Your task to perform on an android device: Empty the shopping cart on target.com. Add "logitech g pro" to the cart on target.com Image 0: 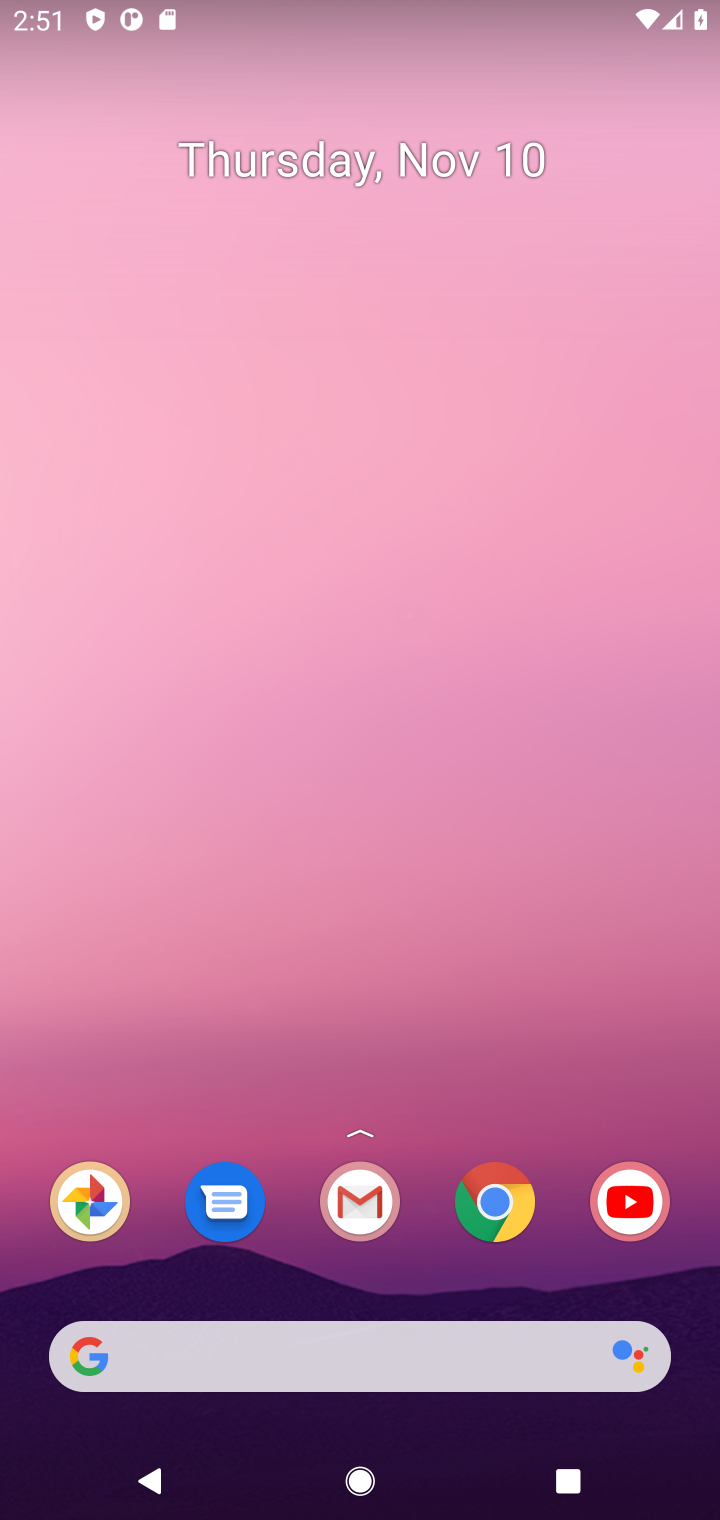
Step 0: click (490, 1219)
Your task to perform on an android device: Empty the shopping cart on target.com. Add "logitech g pro" to the cart on target.com Image 1: 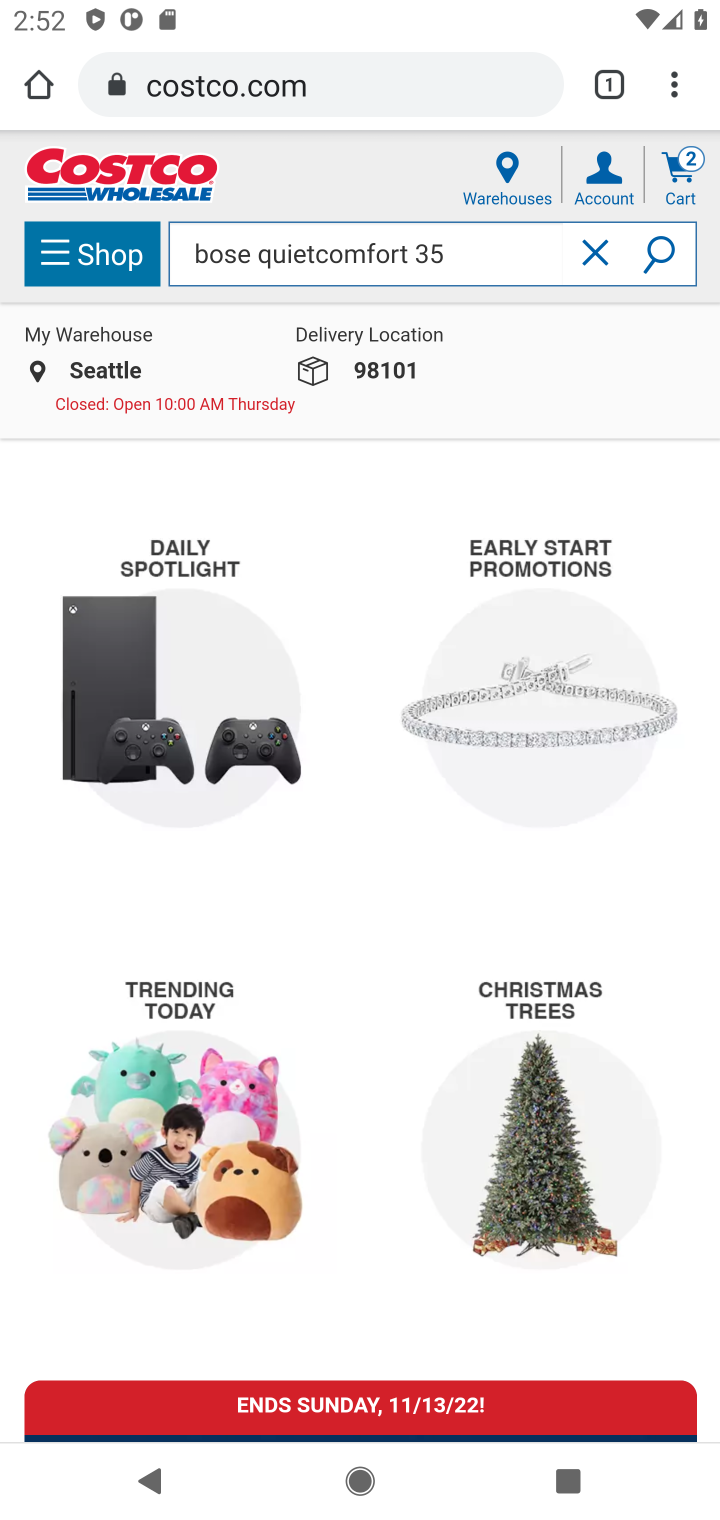
Step 1: click (238, 77)
Your task to perform on an android device: Empty the shopping cart on target.com. Add "logitech g pro" to the cart on target.com Image 2: 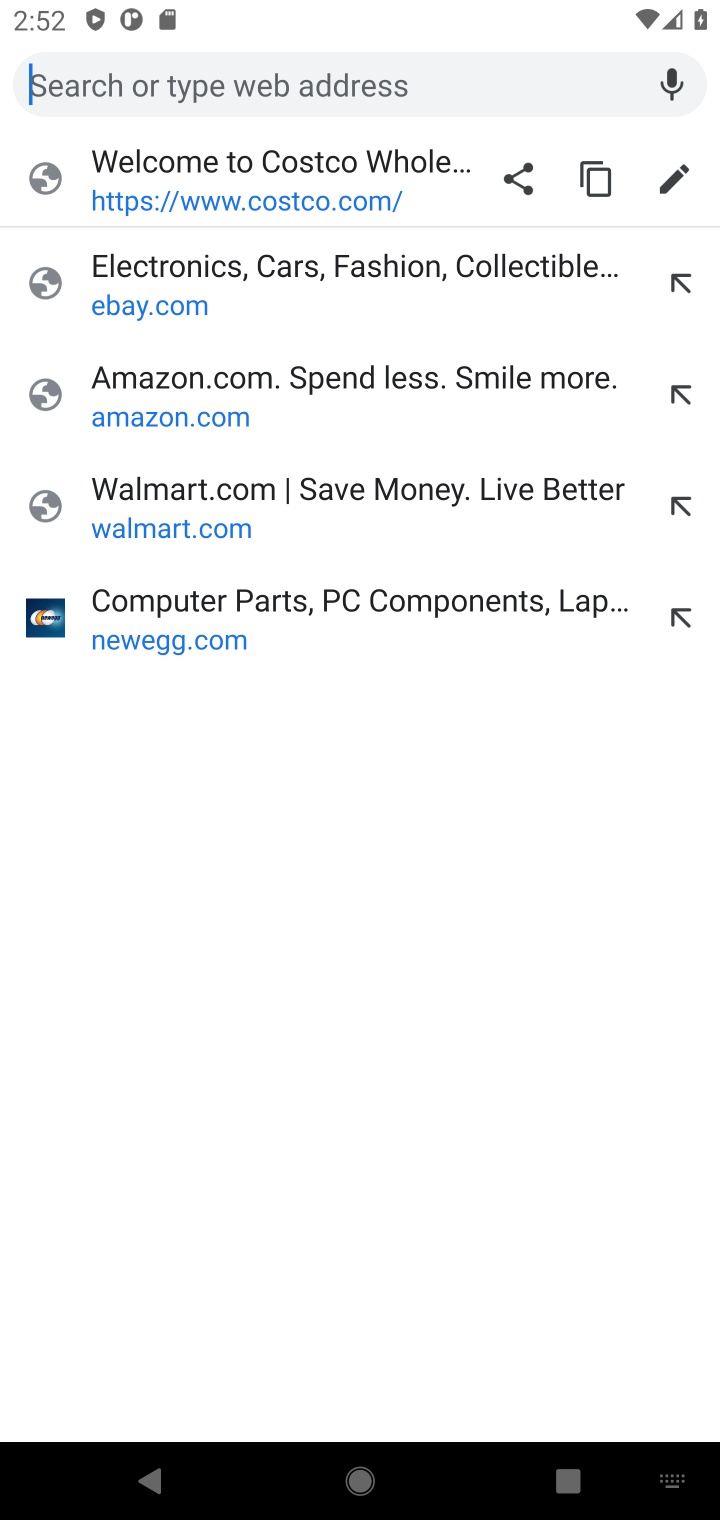
Step 2: press enter
Your task to perform on an android device: Empty the shopping cart on target.com. Add "logitech g pro" to the cart on target.com Image 3: 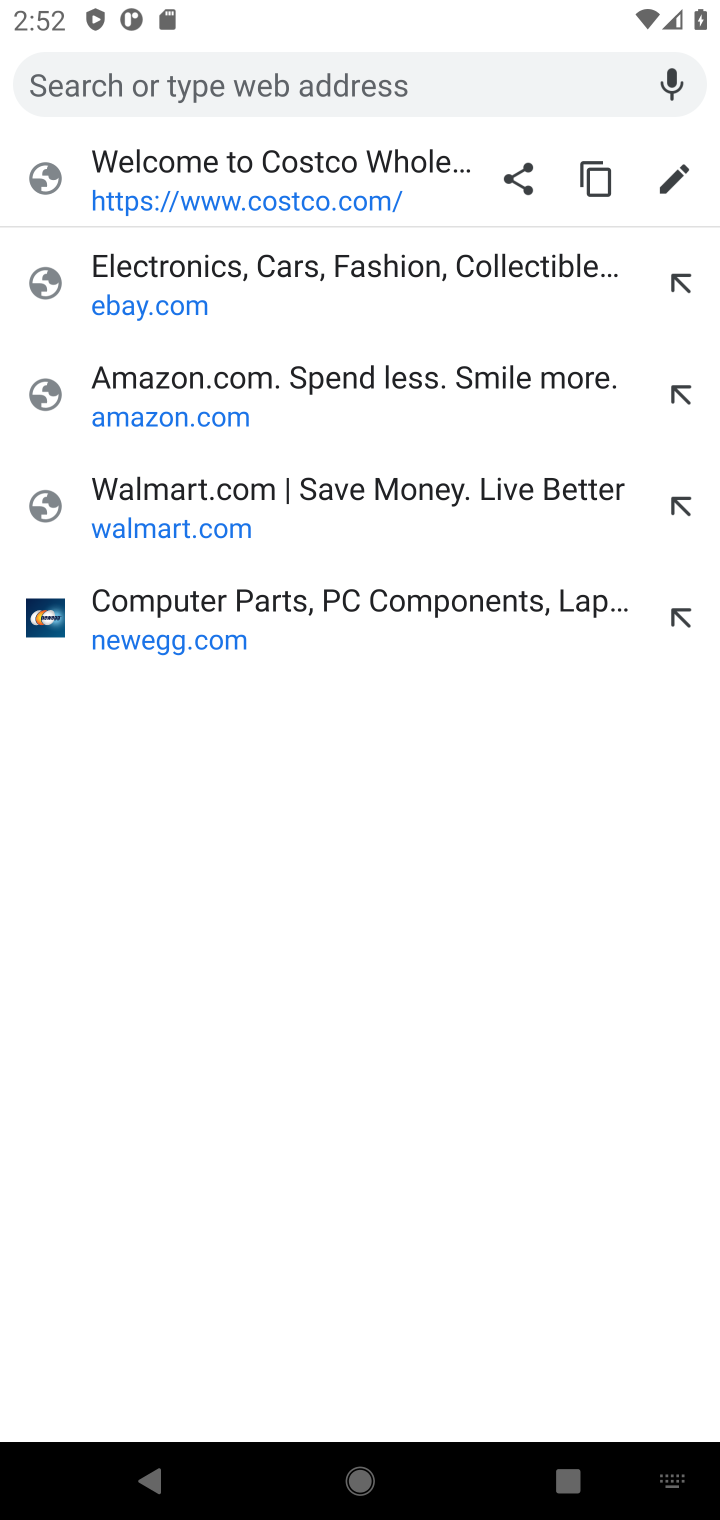
Step 3: type "target.com"
Your task to perform on an android device: Empty the shopping cart on target.com. Add "logitech g pro" to the cart on target.com Image 4: 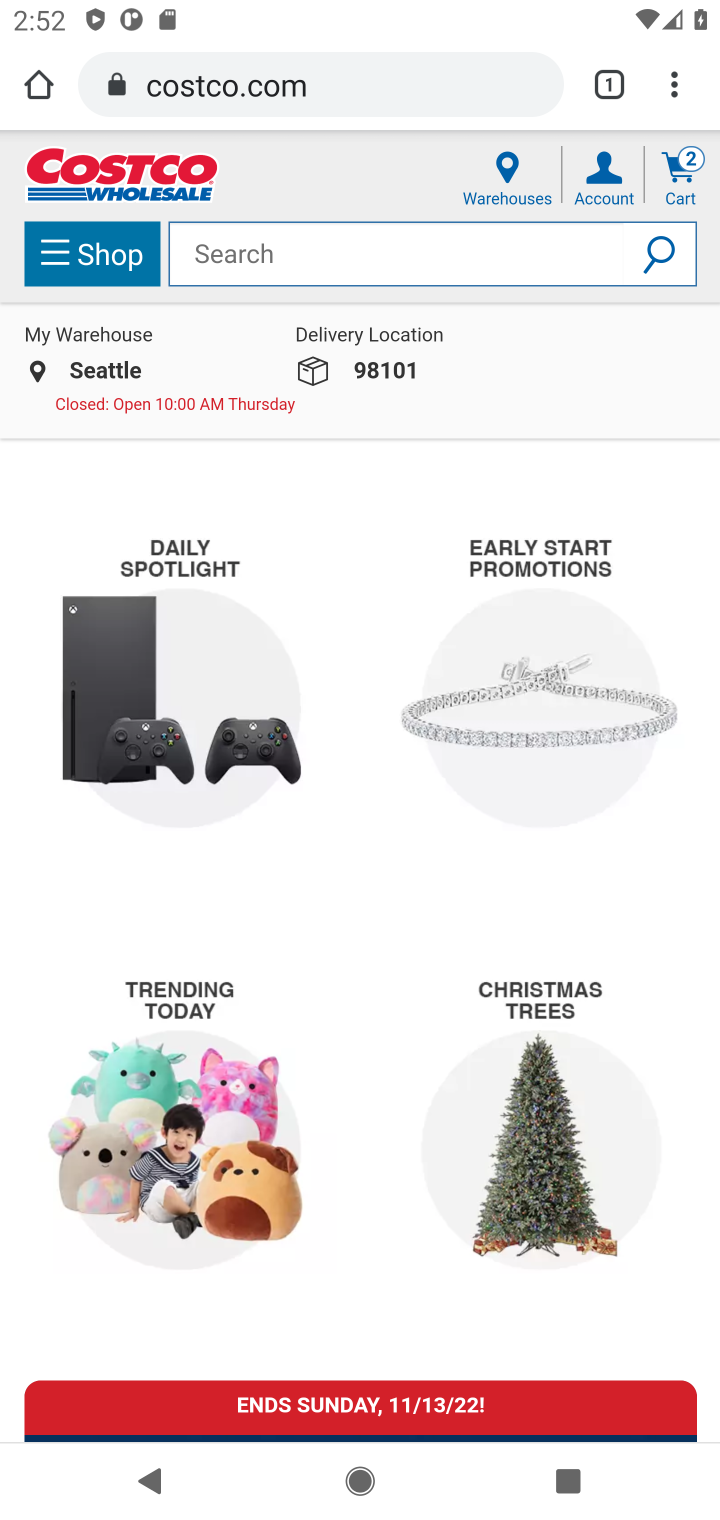
Step 4: click (373, 84)
Your task to perform on an android device: Empty the shopping cart on target.com. Add "logitech g pro" to the cart on target.com Image 5: 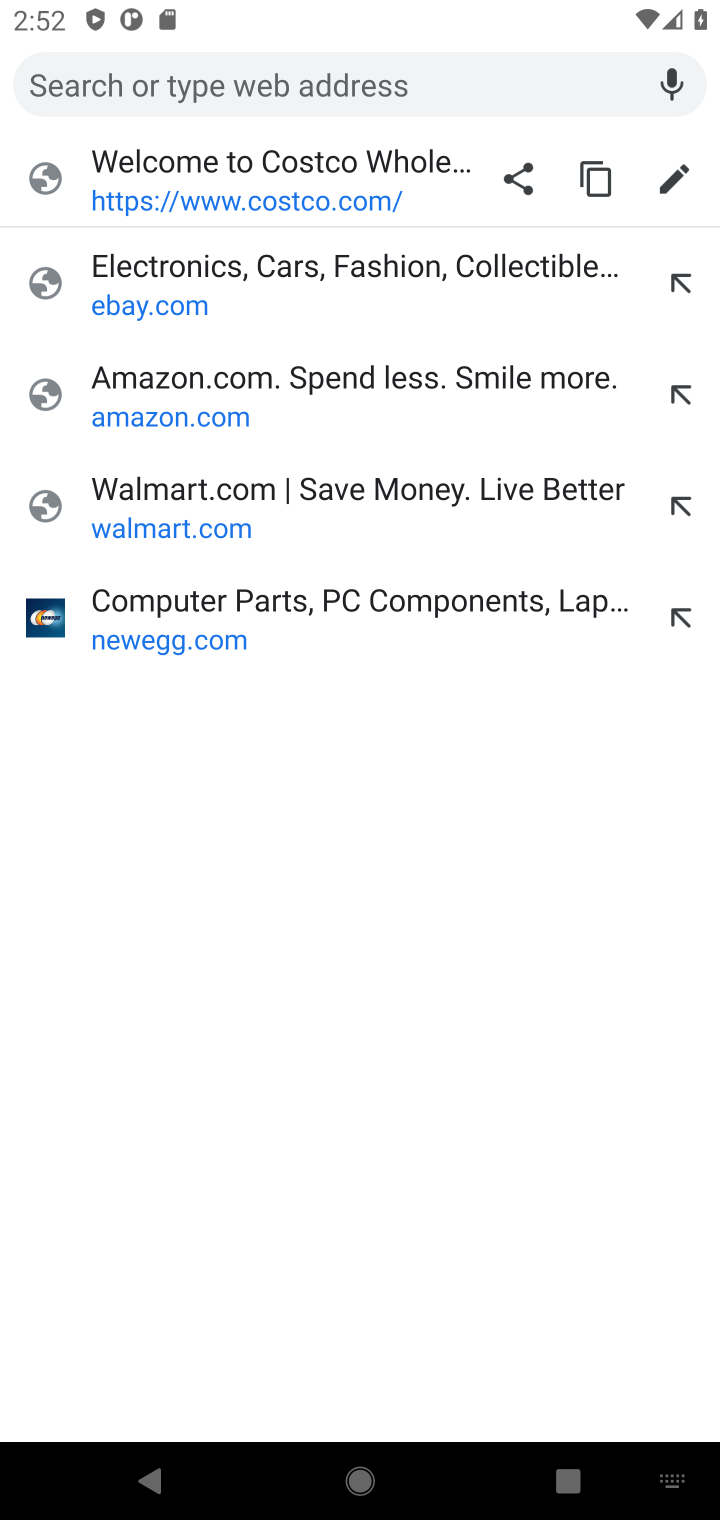
Step 5: type "target.com"
Your task to perform on an android device: Empty the shopping cart on target.com. Add "logitech g pro" to the cart on target.com Image 6: 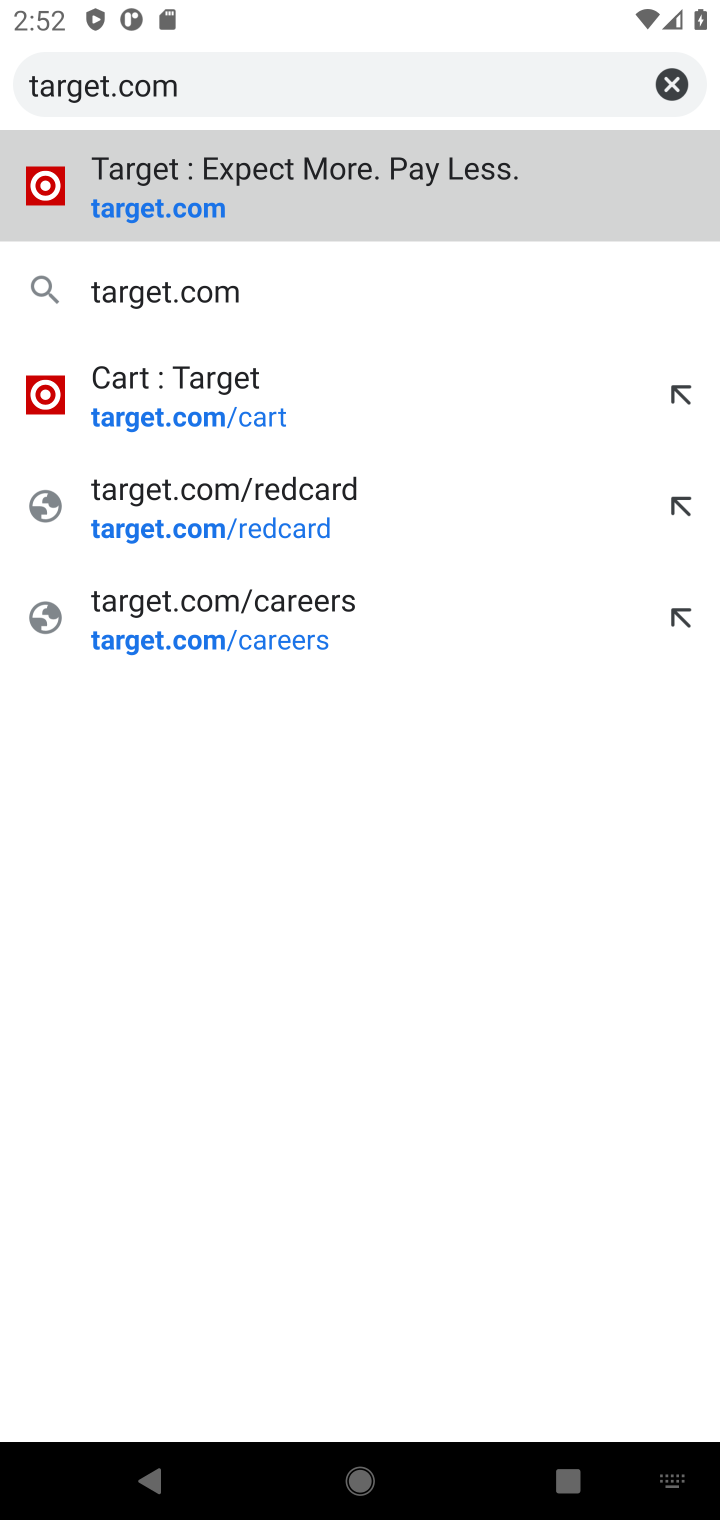
Step 6: press enter
Your task to perform on an android device: Empty the shopping cart on target.com. Add "logitech g pro" to the cart on target.com Image 7: 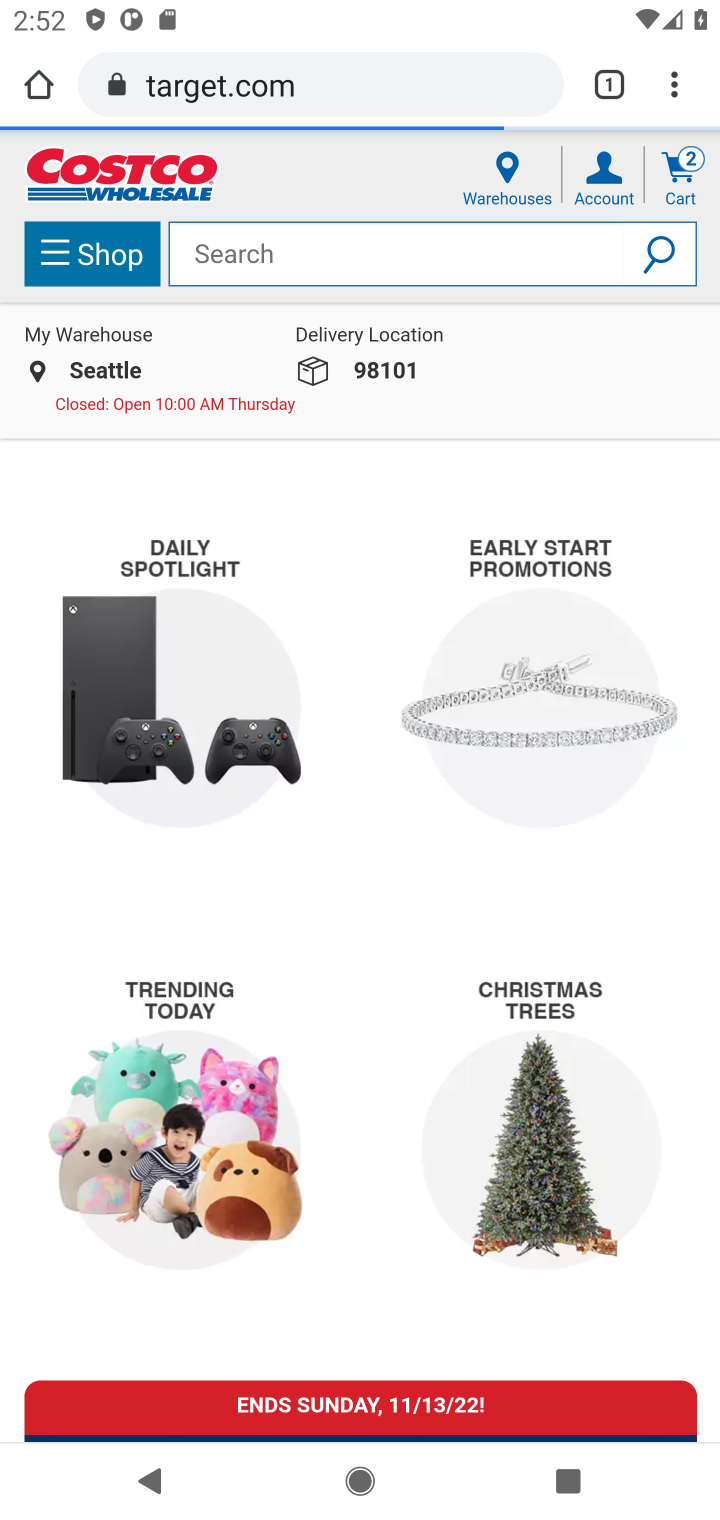
Step 7: click (233, 296)
Your task to perform on an android device: Empty the shopping cart on target.com. Add "logitech g pro" to the cart on target.com Image 8: 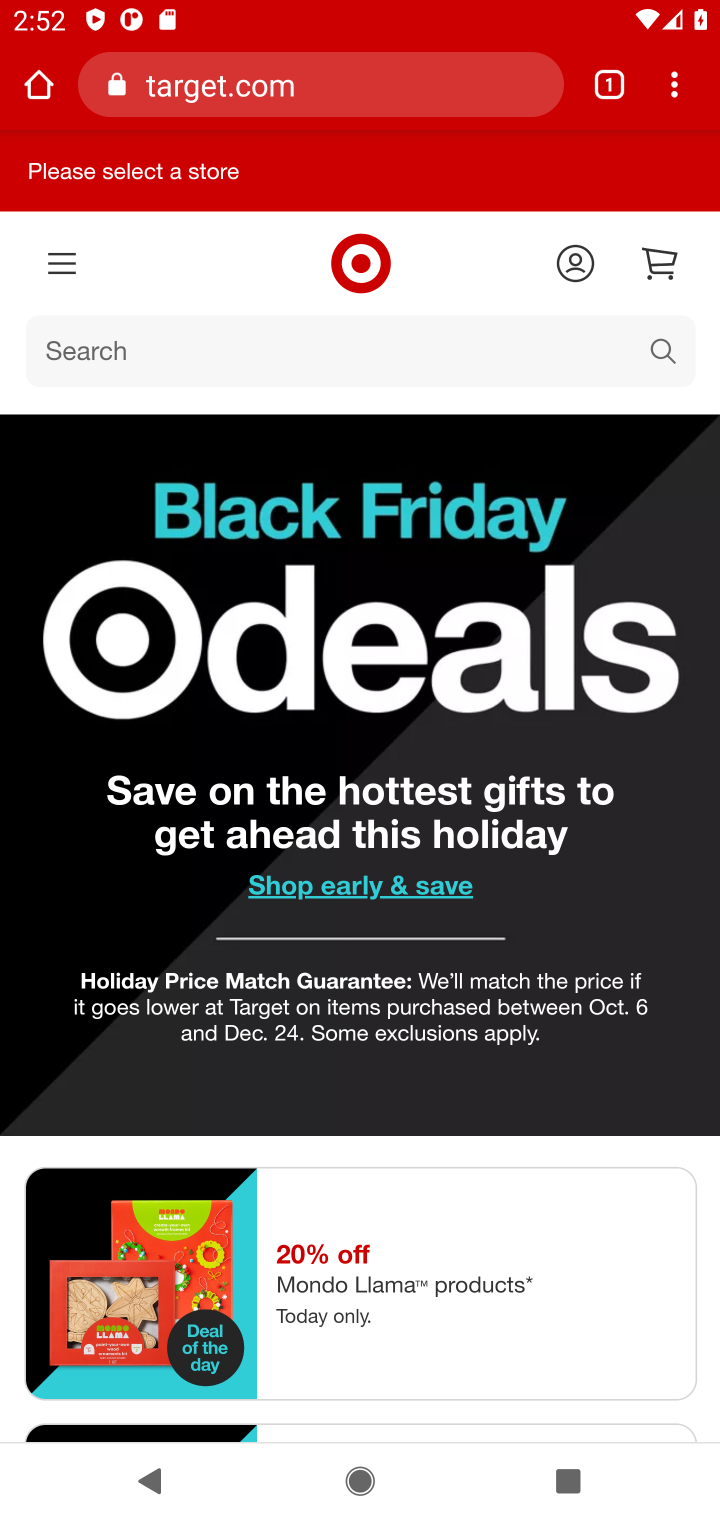
Step 8: click (680, 265)
Your task to perform on an android device: Empty the shopping cart on target.com. Add "logitech g pro" to the cart on target.com Image 9: 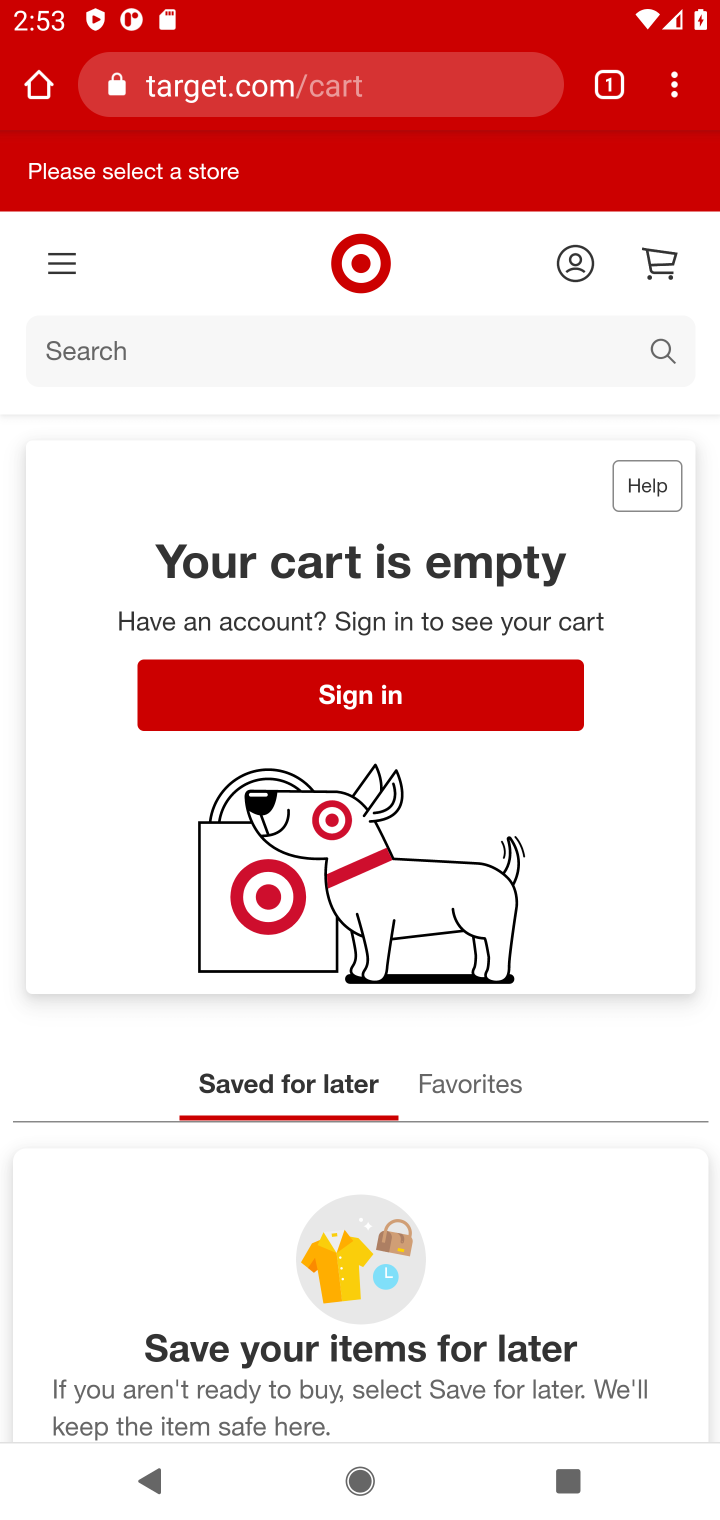
Step 9: click (649, 347)
Your task to perform on an android device: Empty the shopping cart on target.com. Add "logitech g pro" to the cart on target.com Image 10: 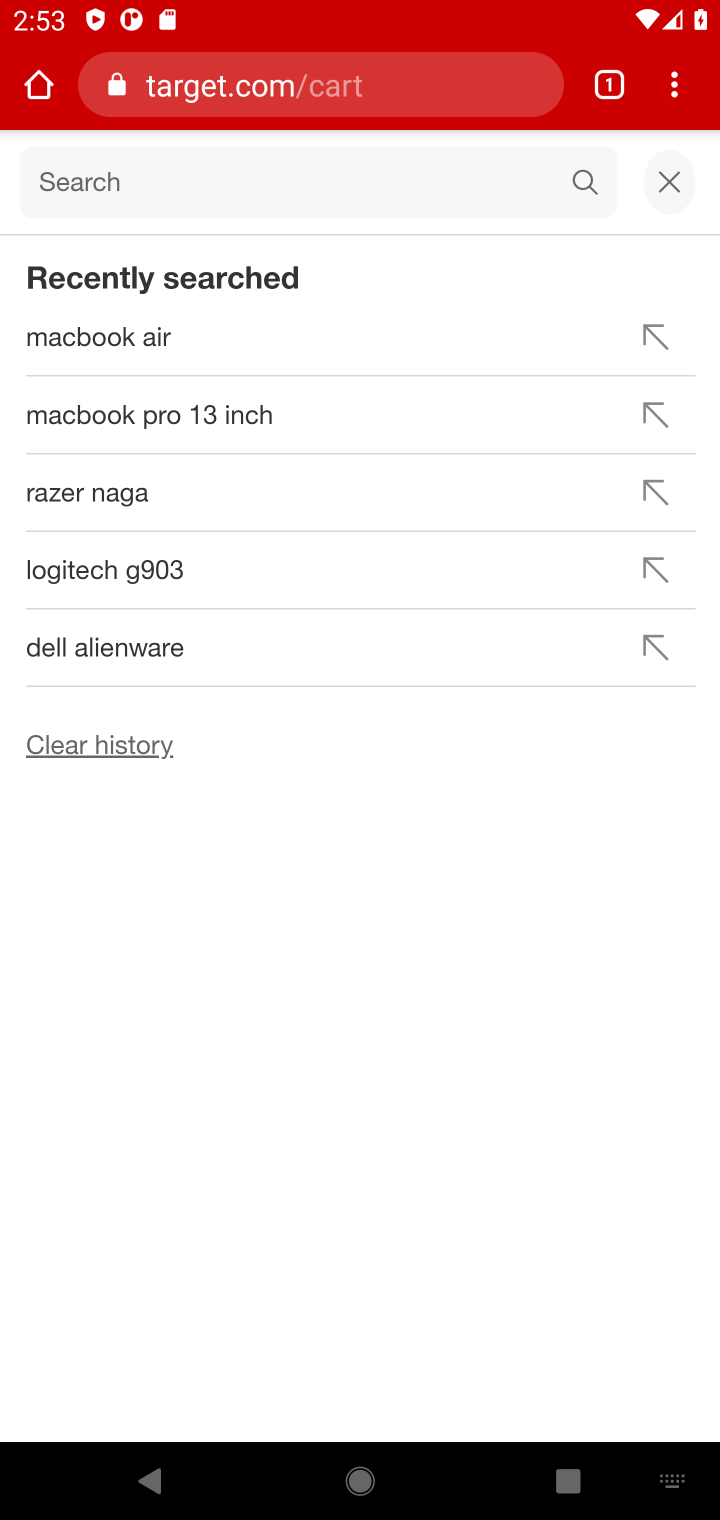
Step 10: type "logitech g pro"
Your task to perform on an android device: Empty the shopping cart on target.com. Add "logitech g pro" to the cart on target.com Image 11: 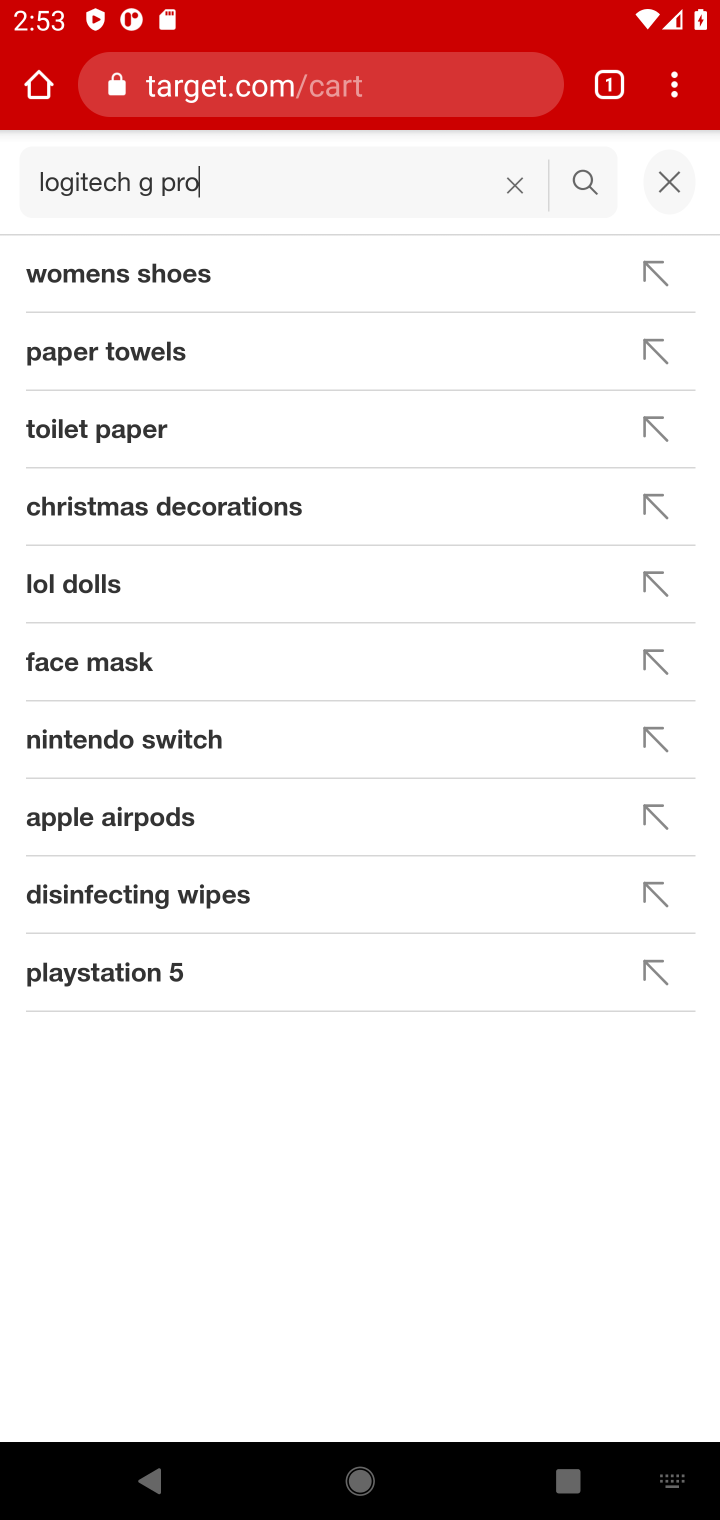
Step 11: press enter
Your task to perform on an android device: Empty the shopping cart on target.com. Add "logitech g pro" to the cart on target.com Image 12: 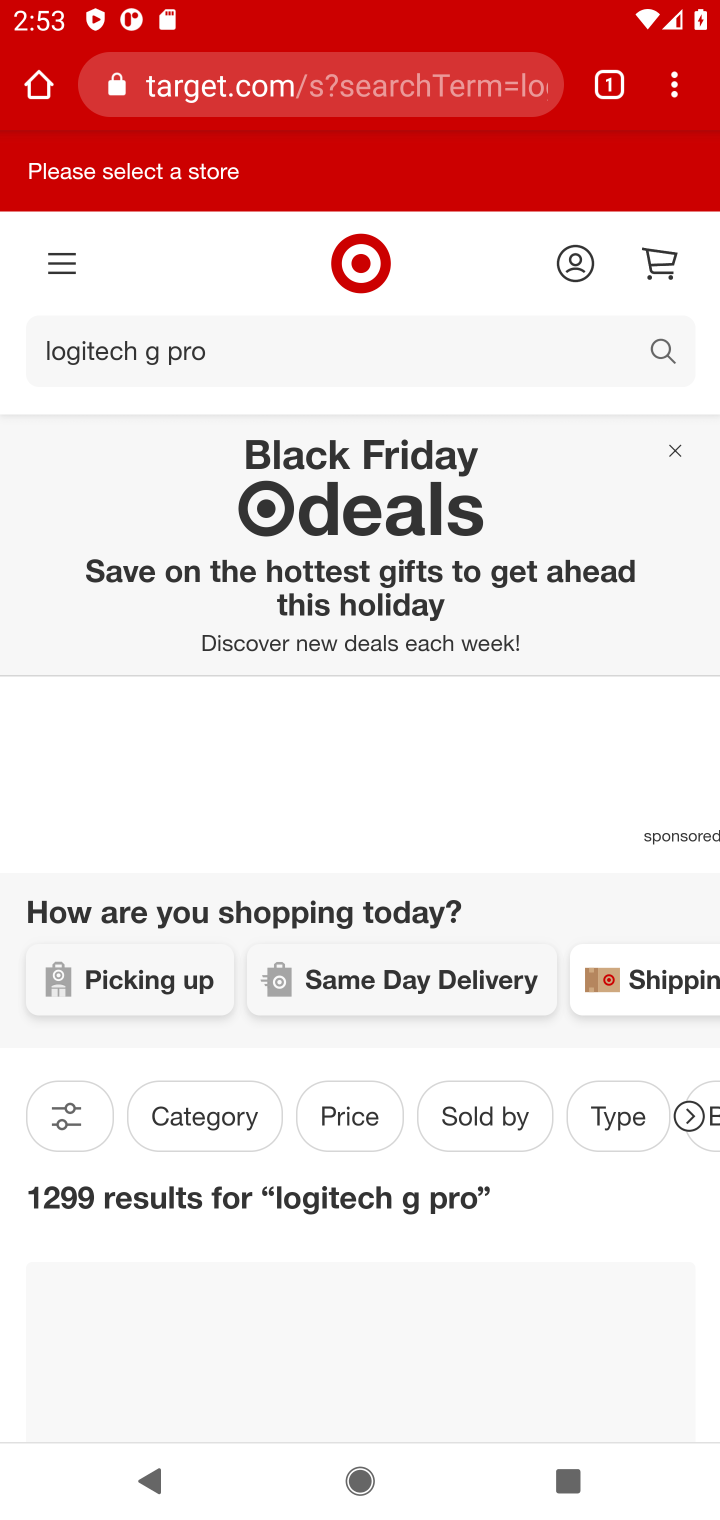
Step 12: task complete